Your task to perform on an android device: turn off airplane mode Image 0: 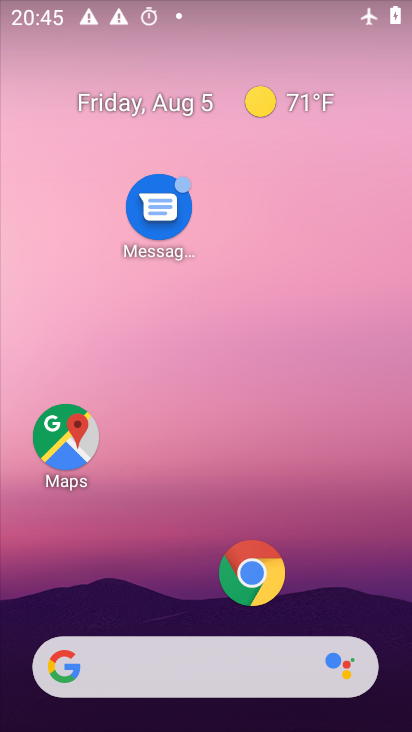
Step 0: press home button
Your task to perform on an android device: turn off airplane mode Image 1: 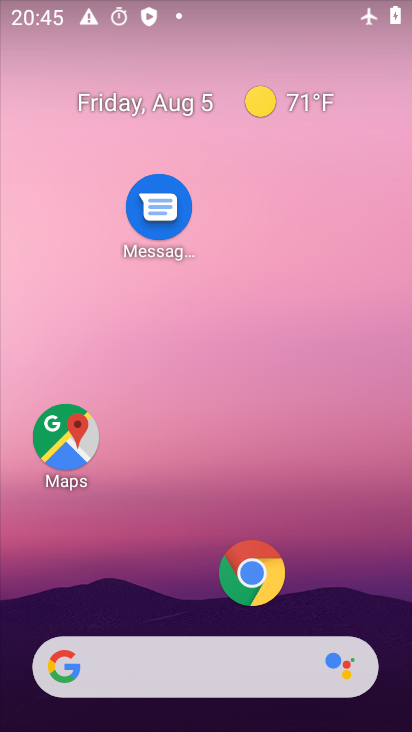
Step 1: drag from (193, 611) to (231, 3)
Your task to perform on an android device: turn off airplane mode Image 2: 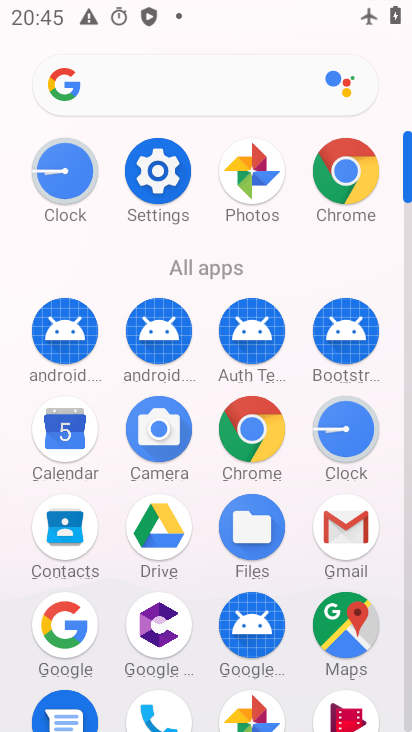
Step 2: drag from (262, 3) to (307, 580)
Your task to perform on an android device: turn off airplane mode Image 3: 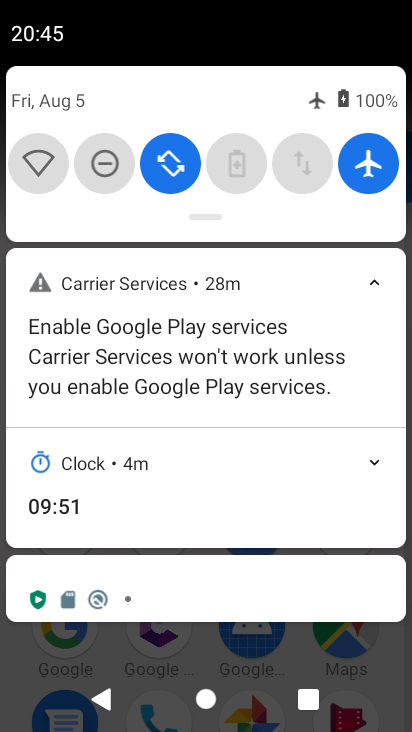
Step 3: click (370, 161)
Your task to perform on an android device: turn off airplane mode Image 4: 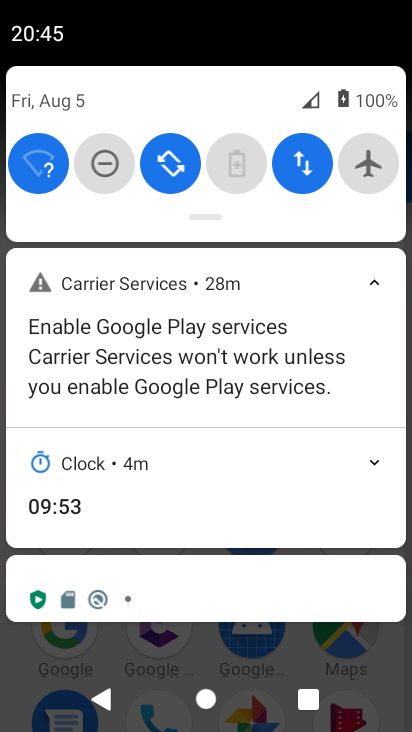
Step 4: task complete